Your task to perform on an android device: delete browsing data in the chrome app Image 0: 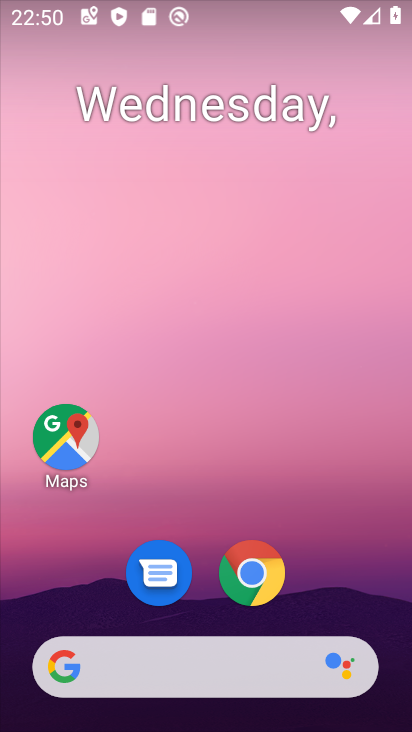
Step 0: press home button
Your task to perform on an android device: delete browsing data in the chrome app Image 1: 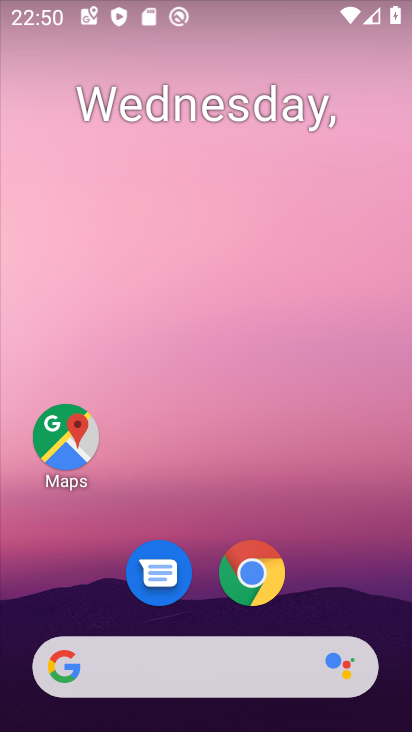
Step 1: drag from (219, 628) to (285, 235)
Your task to perform on an android device: delete browsing data in the chrome app Image 2: 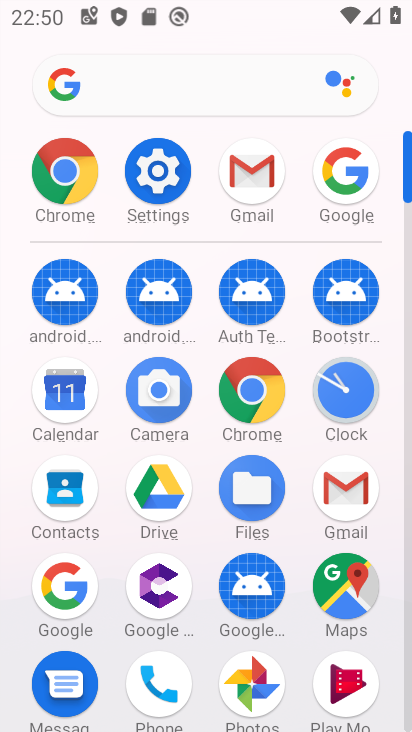
Step 2: click (255, 397)
Your task to perform on an android device: delete browsing data in the chrome app Image 3: 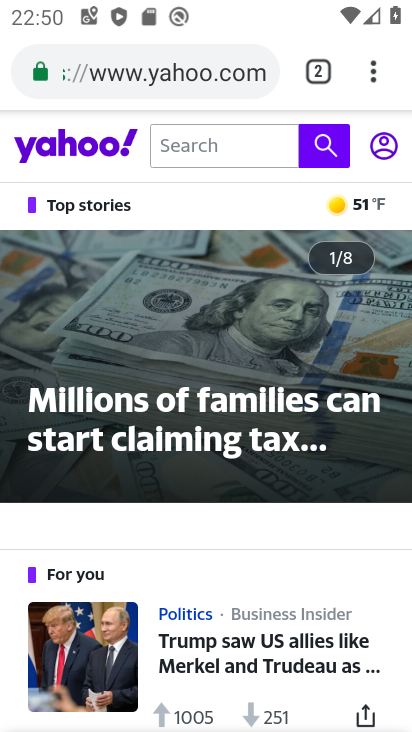
Step 3: click (375, 65)
Your task to perform on an android device: delete browsing data in the chrome app Image 4: 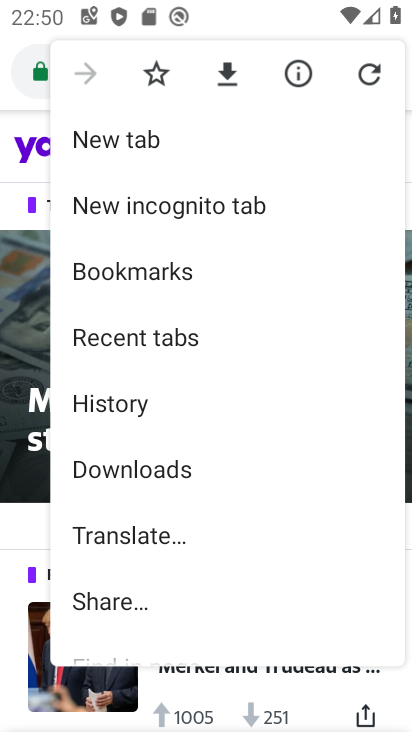
Step 4: drag from (137, 605) to (179, 261)
Your task to perform on an android device: delete browsing data in the chrome app Image 5: 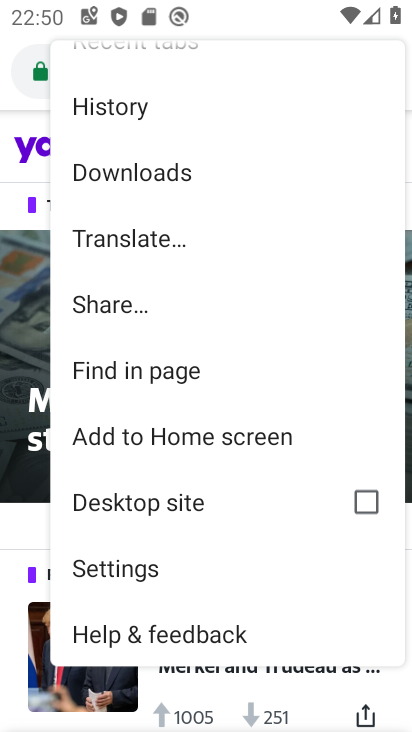
Step 5: click (125, 569)
Your task to perform on an android device: delete browsing data in the chrome app Image 6: 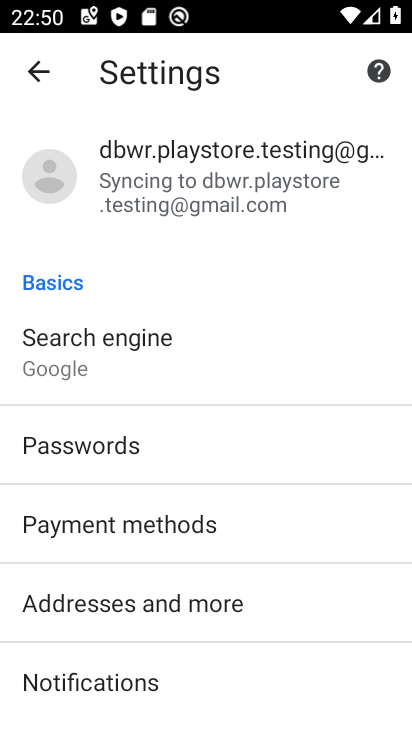
Step 6: drag from (137, 695) to (195, 311)
Your task to perform on an android device: delete browsing data in the chrome app Image 7: 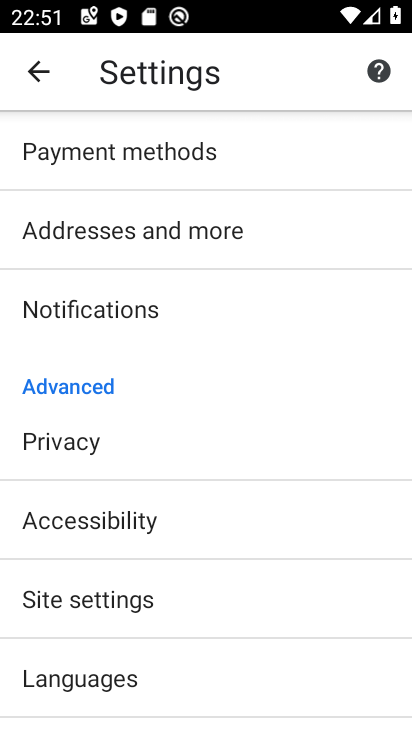
Step 7: click (188, 303)
Your task to perform on an android device: delete browsing data in the chrome app Image 8: 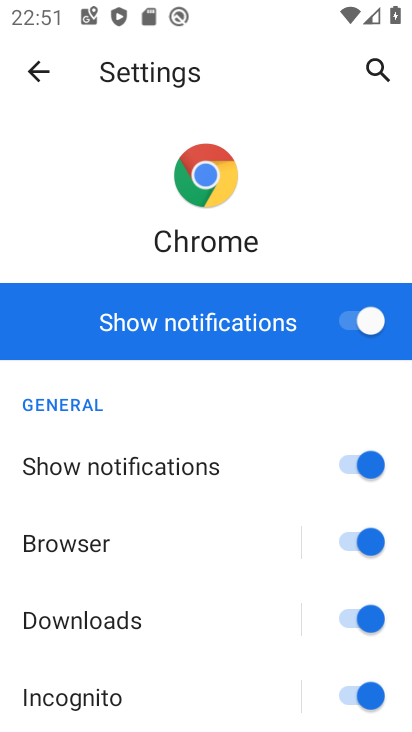
Step 8: click (33, 73)
Your task to perform on an android device: delete browsing data in the chrome app Image 9: 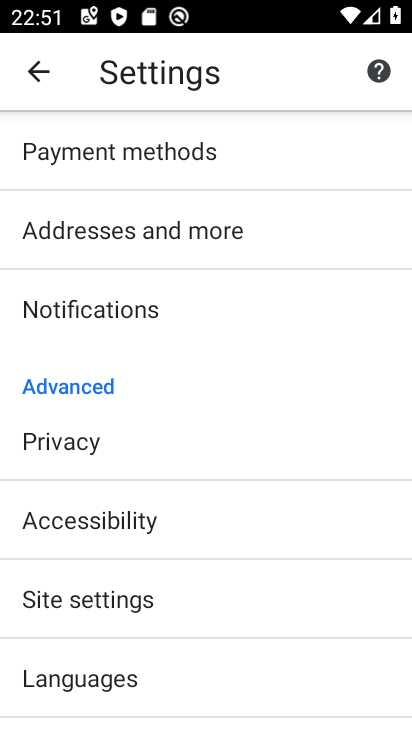
Step 9: drag from (148, 681) to (213, 333)
Your task to perform on an android device: delete browsing data in the chrome app Image 10: 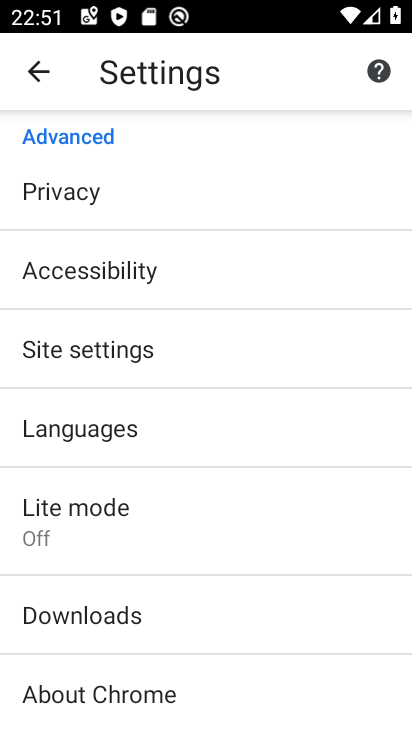
Step 10: drag from (157, 711) to (218, 343)
Your task to perform on an android device: delete browsing data in the chrome app Image 11: 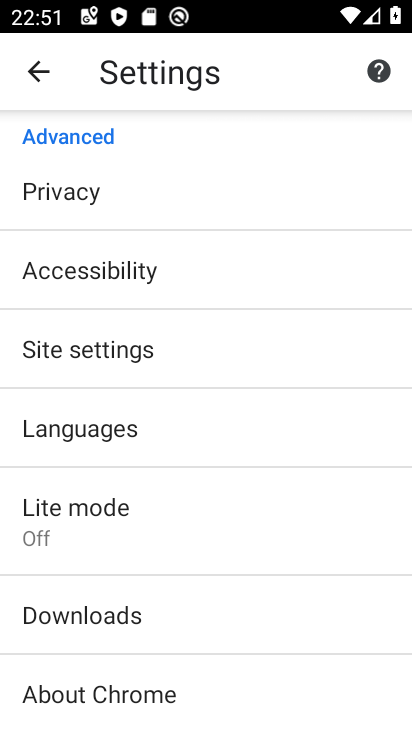
Step 11: click (103, 193)
Your task to perform on an android device: delete browsing data in the chrome app Image 12: 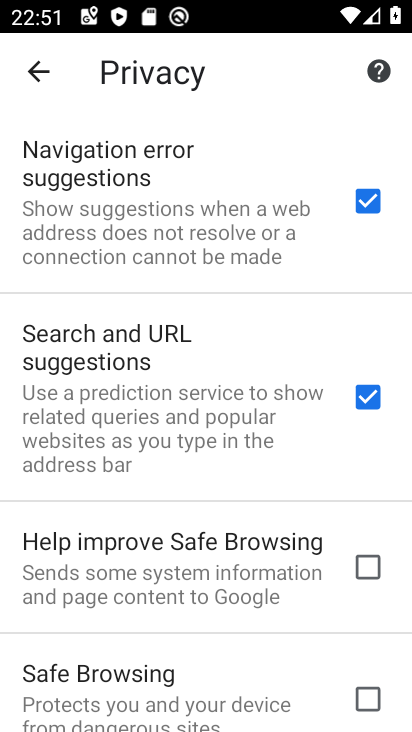
Step 12: drag from (264, 676) to (305, 309)
Your task to perform on an android device: delete browsing data in the chrome app Image 13: 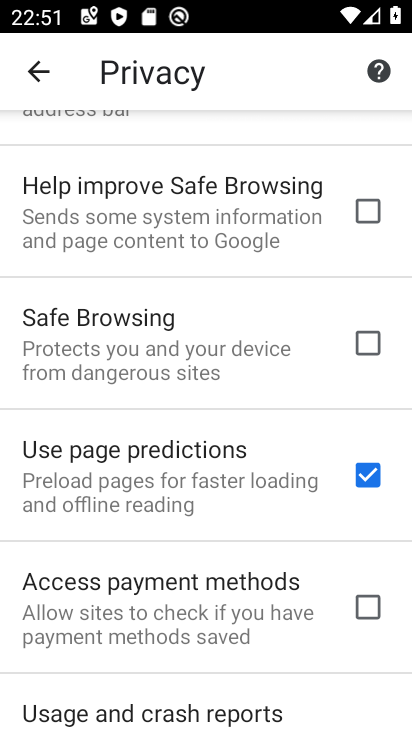
Step 13: drag from (258, 595) to (298, 311)
Your task to perform on an android device: delete browsing data in the chrome app Image 14: 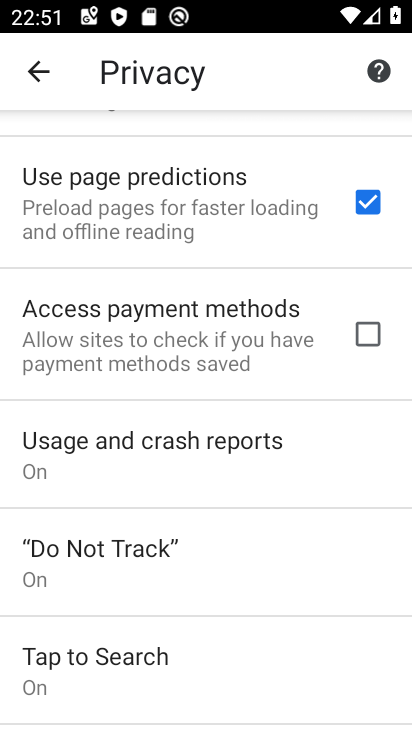
Step 14: drag from (205, 650) to (243, 380)
Your task to perform on an android device: delete browsing data in the chrome app Image 15: 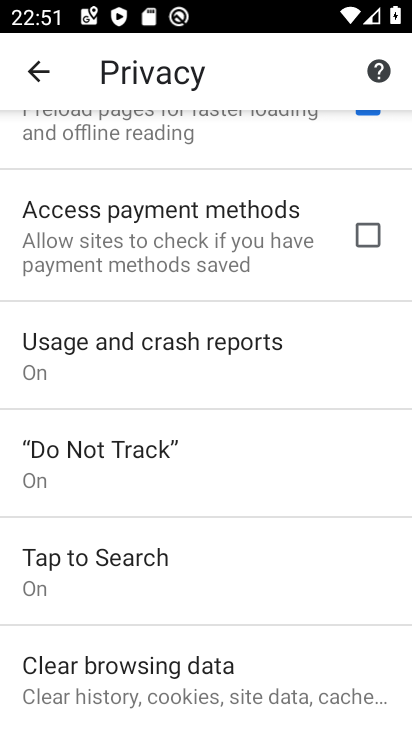
Step 15: click (225, 683)
Your task to perform on an android device: delete browsing data in the chrome app Image 16: 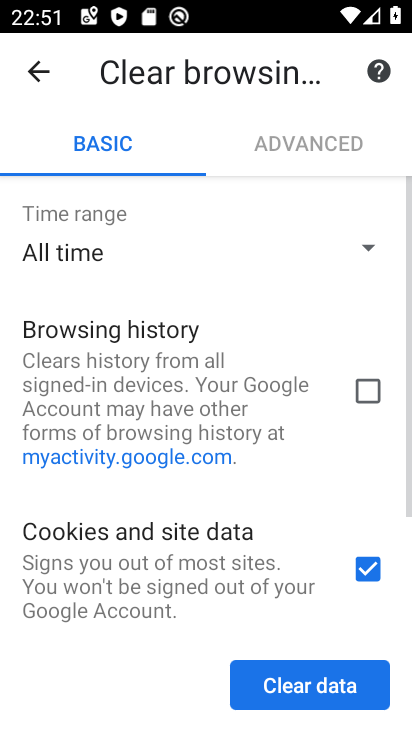
Step 16: click (377, 387)
Your task to perform on an android device: delete browsing data in the chrome app Image 17: 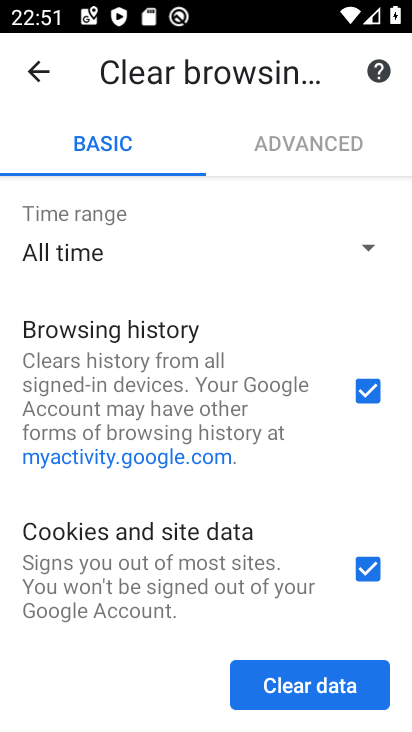
Step 17: drag from (277, 598) to (295, 290)
Your task to perform on an android device: delete browsing data in the chrome app Image 18: 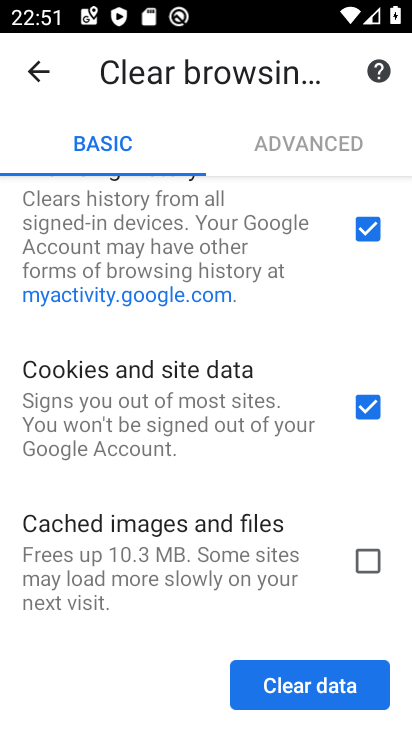
Step 18: click (366, 570)
Your task to perform on an android device: delete browsing data in the chrome app Image 19: 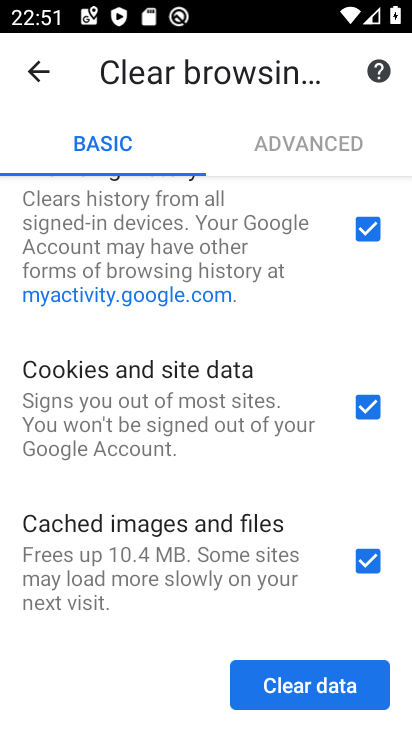
Step 19: task complete